Your task to perform on an android device: turn off picture-in-picture Image 0: 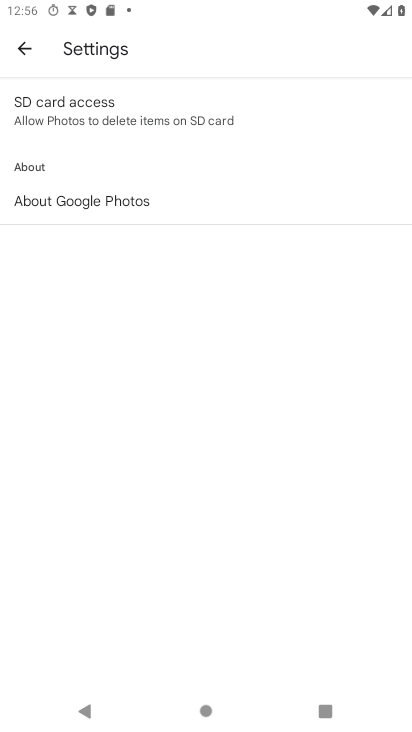
Step 0: press home button
Your task to perform on an android device: turn off picture-in-picture Image 1: 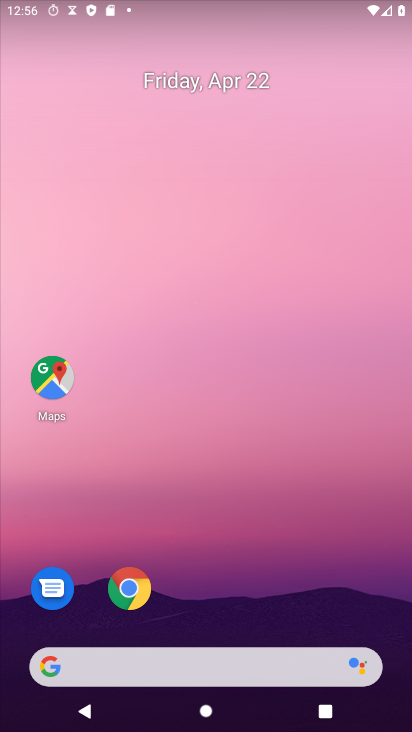
Step 1: drag from (230, 695) to (168, 117)
Your task to perform on an android device: turn off picture-in-picture Image 2: 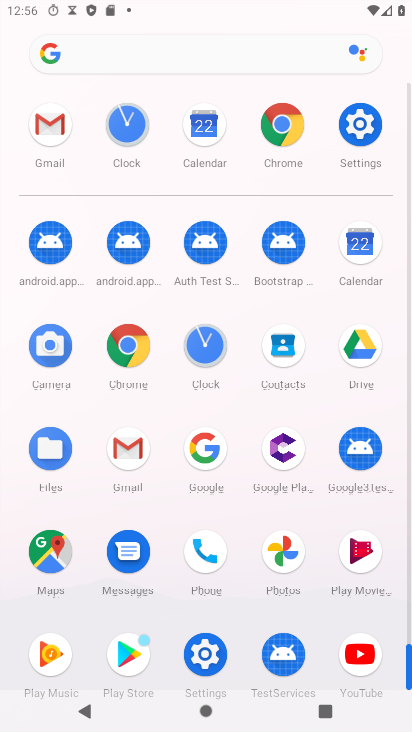
Step 2: click (358, 117)
Your task to perform on an android device: turn off picture-in-picture Image 3: 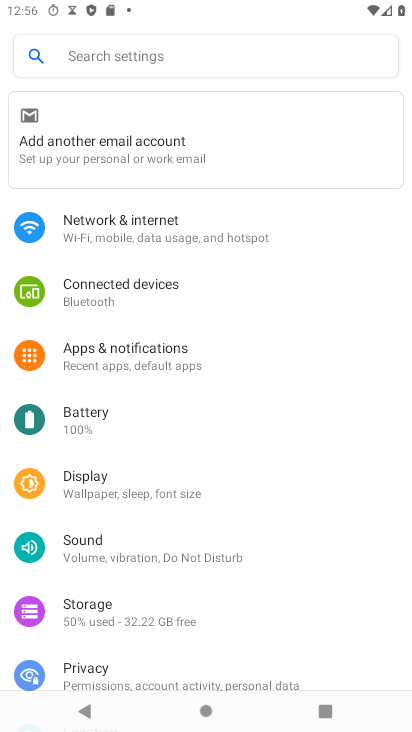
Step 3: click (112, 63)
Your task to perform on an android device: turn off picture-in-picture Image 4: 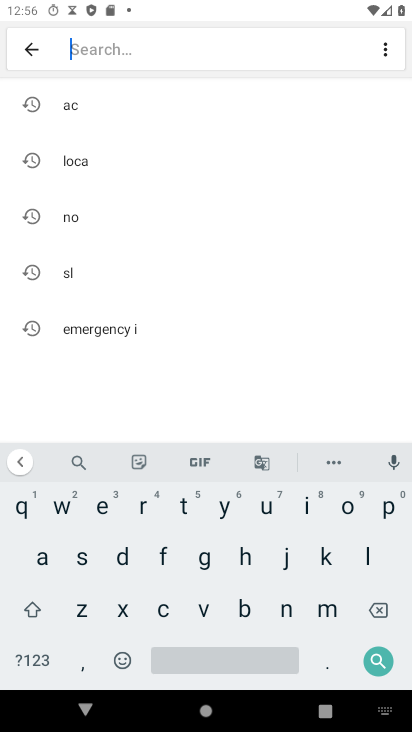
Step 4: click (377, 512)
Your task to perform on an android device: turn off picture-in-picture Image 5: 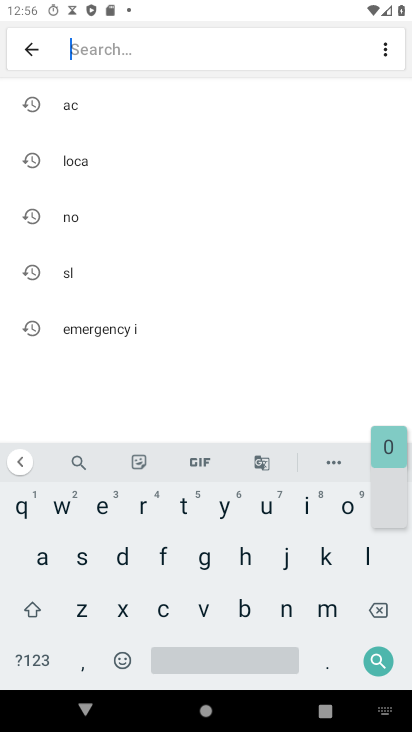
Step 5: click (387, 512)
Your task to perform on an android device: turn off picture-in-picture Image 6: 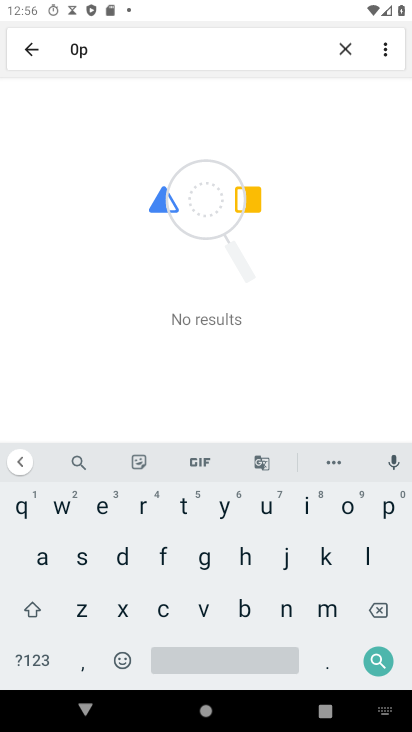
Step 6: click (383, 613)
Your task to perform on an android device: turn off picture-in-picture Image 7: 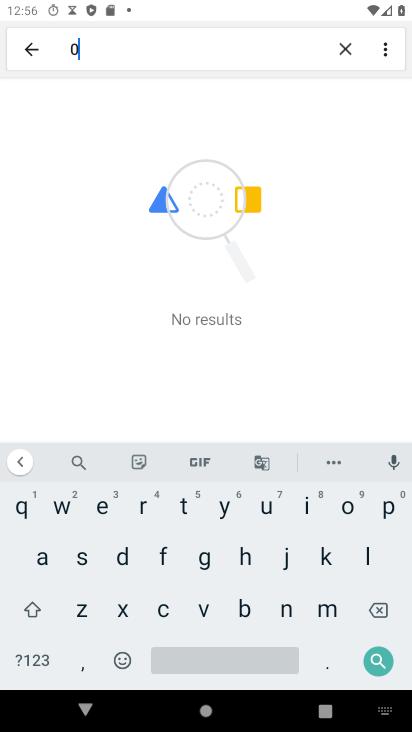
Step 7: click (383, 613)
Your task to perform on an android device: turn off picture-in-picture Image 8: 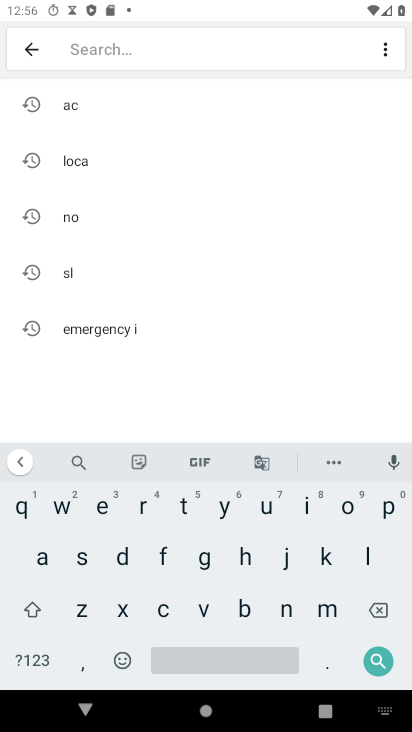
Step 8: click (383, 513)
Your task to perform on an android device: turn off picture-in-picture Image 9: 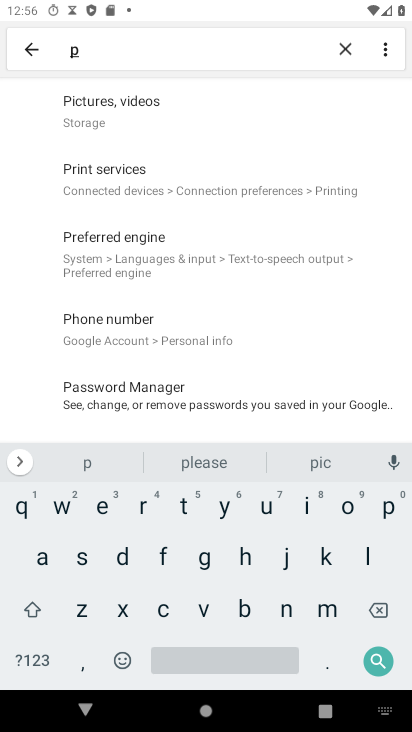
Step 9: click (308, 513)
Your task to perform on an android device: turn off picture-in-picture Image 10: 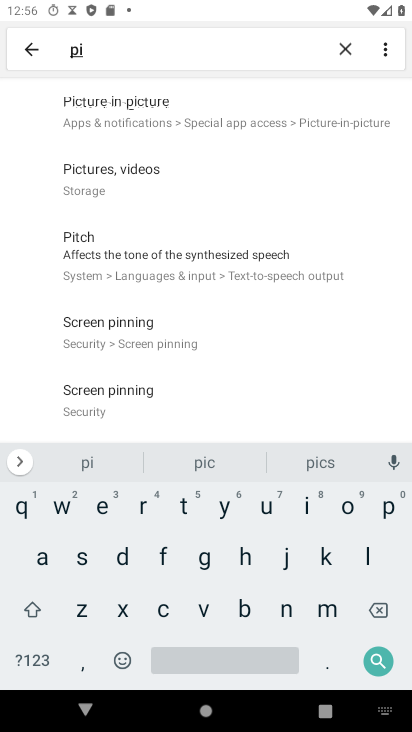
Step 10: click (156, 610)
Your task to perform on an android device: turn off picture-in-picture Image 11: 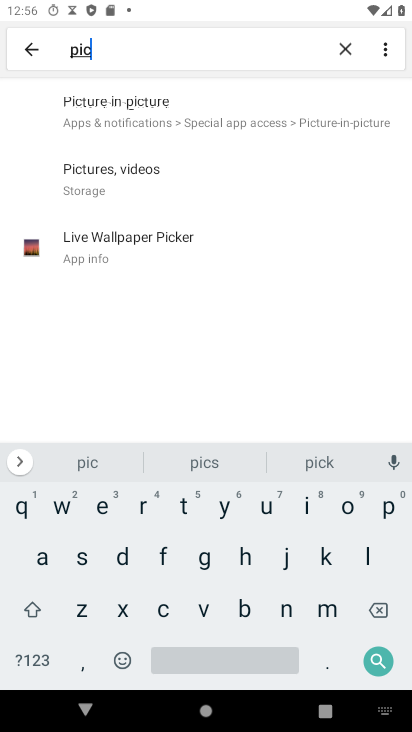
Step 11: click (175, 127)
Your task to perform on an android device: turn off picture-in-picture Image 12: 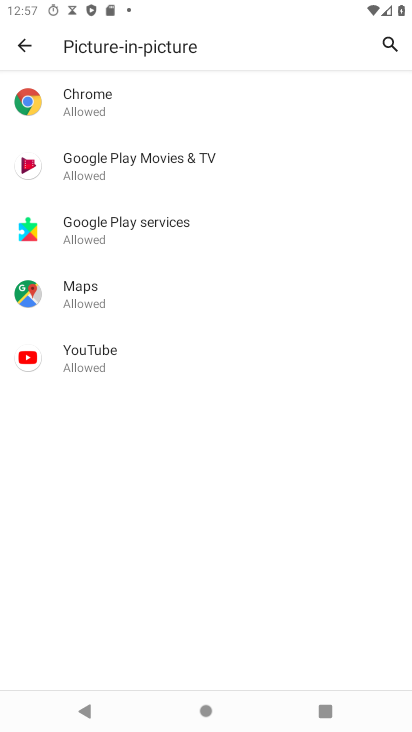
Step 12: task complete